Your task to perform on an android device: turn off data saver in the chrome app Image 0: 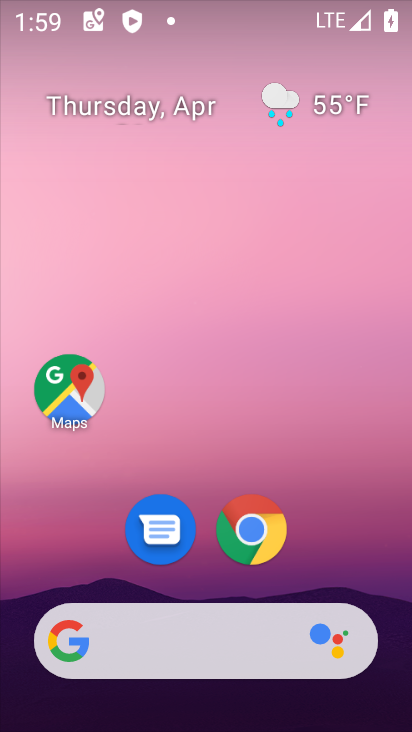
Step 0: click (251, 525)
Your task to perform on an android device: turn off data saver in the chrome app Image 1: 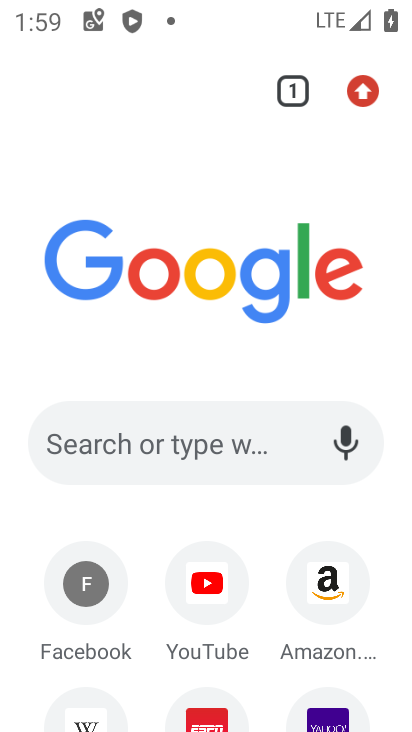
Step 1: drag from (195, 154) to (171, 369)
Your task to perform on an android device: turn off data saver in the chrome app Image 2: 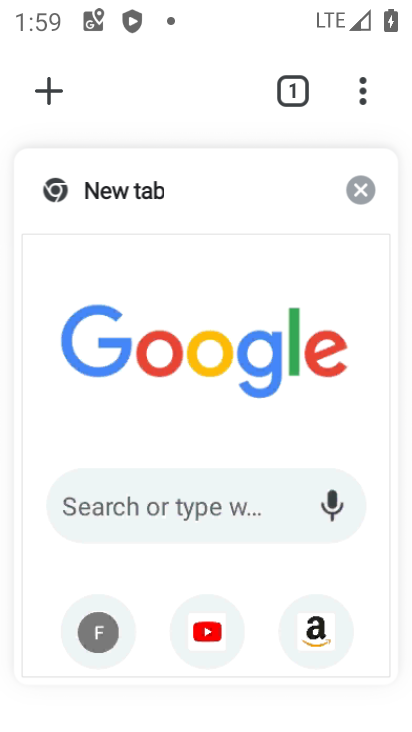
Step 2: click (364, 88)
Your task to perform on an android device: turn off data saver in the chrome app Image 3: 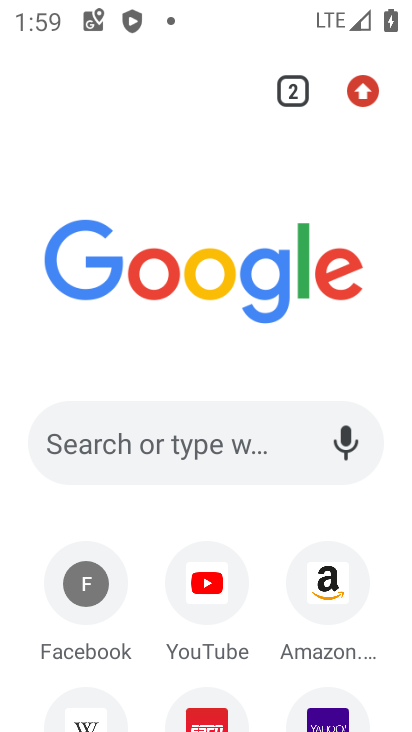
Step 3: click (365, 89)
Your task to perform on an android device: turn off data saver in the chrome app Image 4: 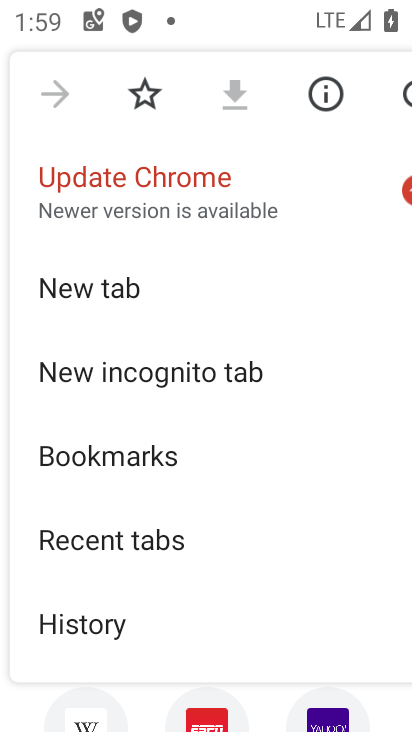
Step 4: drag from (144, 629) to (224, 270)
Your task to perform on an android device: turn off data saver in the chrome app Image 5: 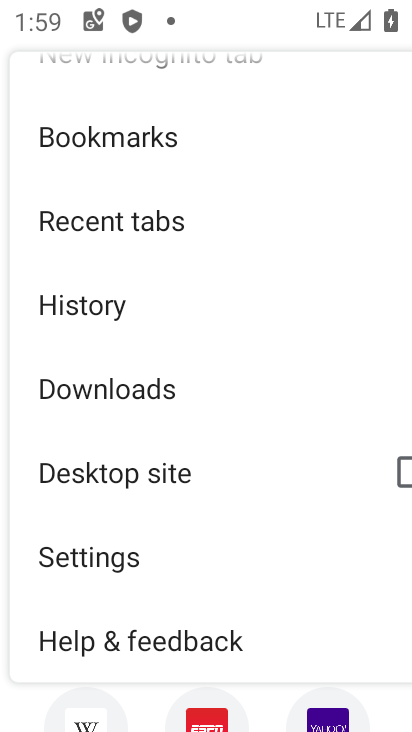
Step 5: drag from (142, 590) to (222, 198)
Your task to perform on an android device: turn off data saver in the chrome app Image 6: 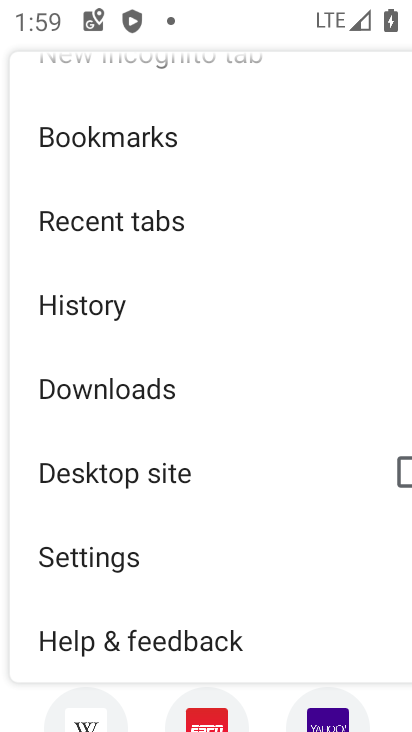
Step 6: click (114, 545)
Your task to perform on an android device: turn off data saver in the chrome app Image 7: 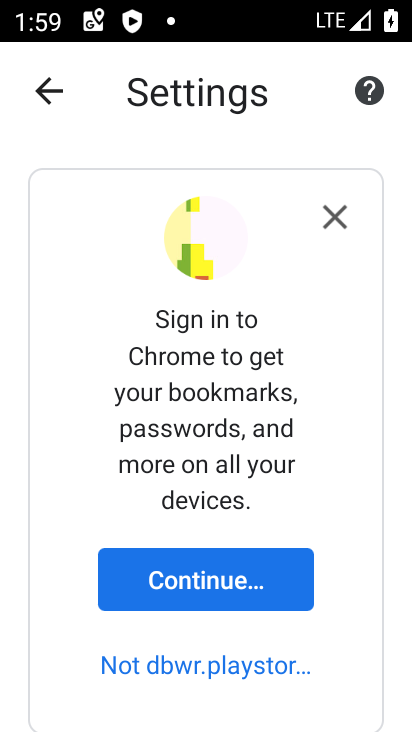
Step 7: click (323, 217)
Your task to perform on an android device: turn off data saver in the chrome app Image 8: 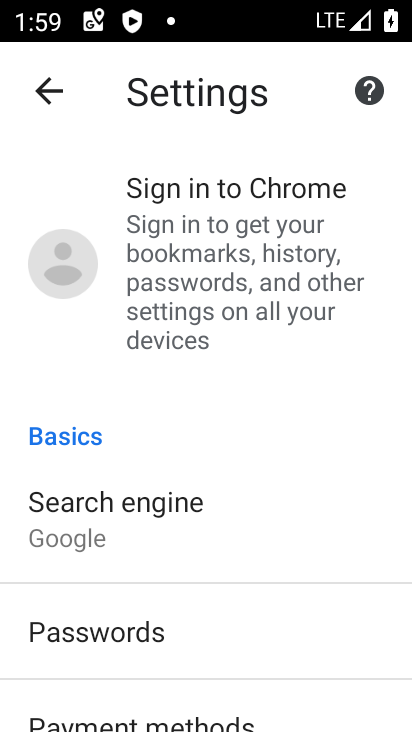
Step 8: drag from (139, 668) to (241, 336)
Your task to perform on an android device: turn off data saver in the chrome app Image 9: 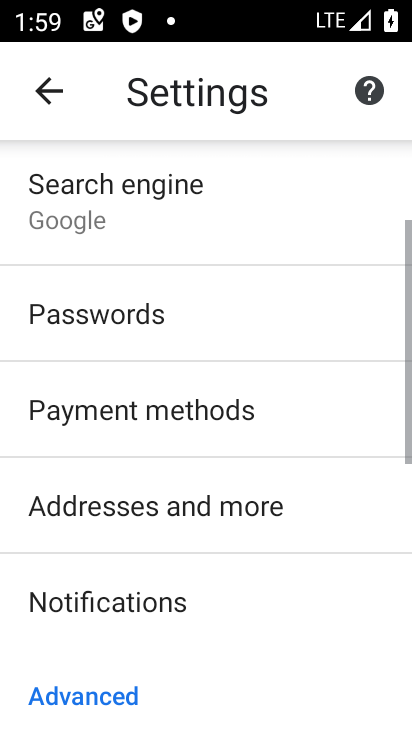
Step 9: drag from (168, 606) to (300, 189)
Your task to perform on an android device: turn off data saver in the chrome app Image 10: 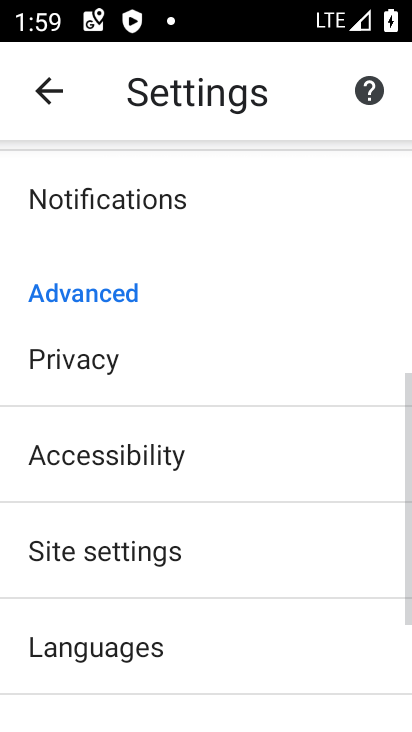
Step 10: drag from (223, 672) to (327, 226)
Your task to perform on an android device: turn off data saver in the chrome app Image 11: 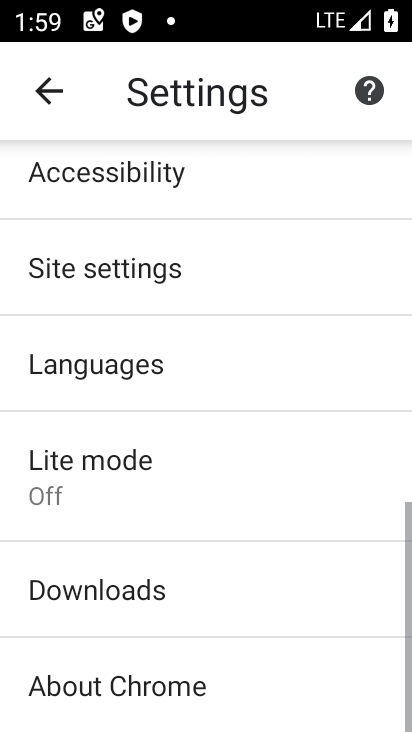
Step 11: click (132, 471)
Your task to perform on an android device: turn off data saver in the chrome app Image 12: 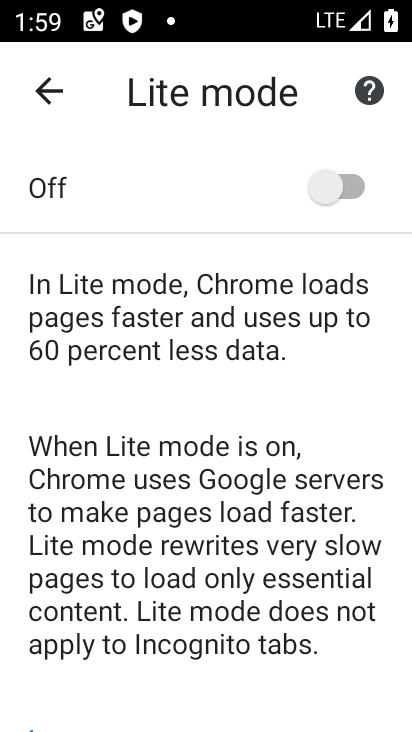
Step 12: task complete